Your task to perform on an android device: What's on my calendar tomorrow? Image 0: 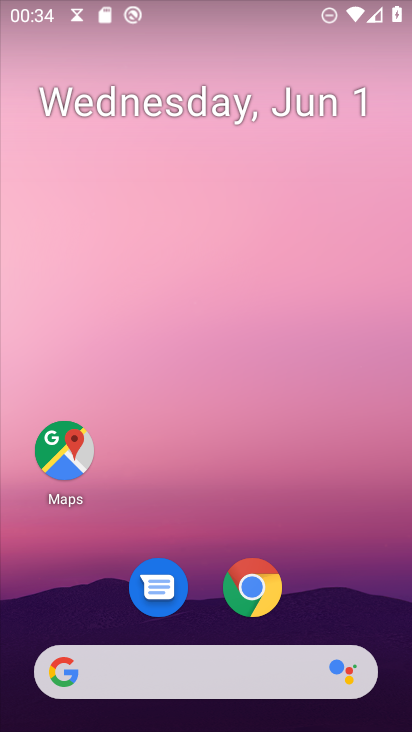
Step 0: drag from (314, 616) to (318, 31)
Your task to perform on an android device: What's on my calendar tomorrow? Image 1: 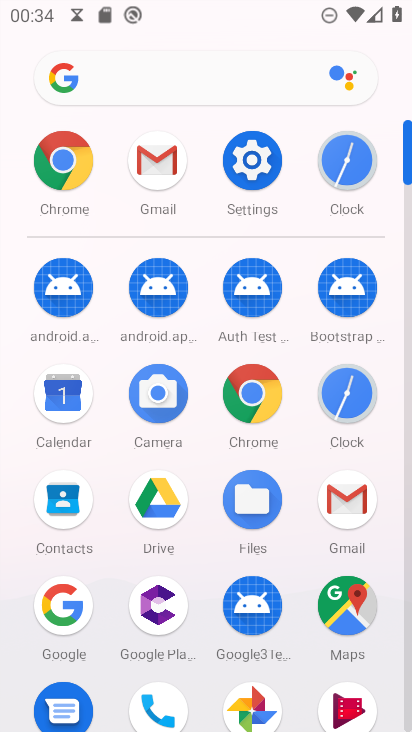
Step 1: click (52, 396)
Your task to perform on an android device: What's on my calendar tomorrow? Image 2: 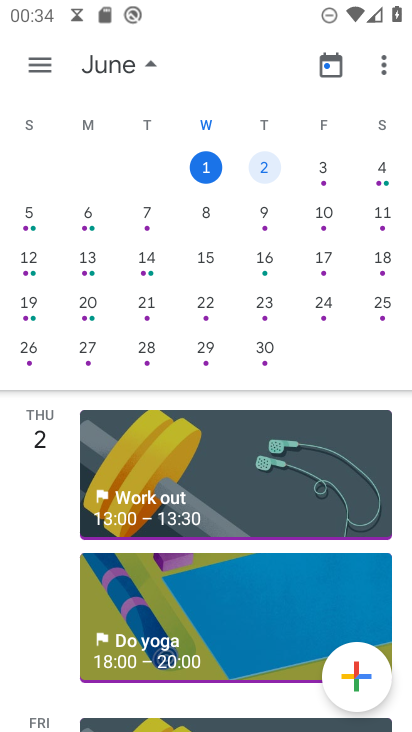
Step 2: click (266, 167)
Your task to perform on an android device: What's on my calendar tomorrow? Image 3: 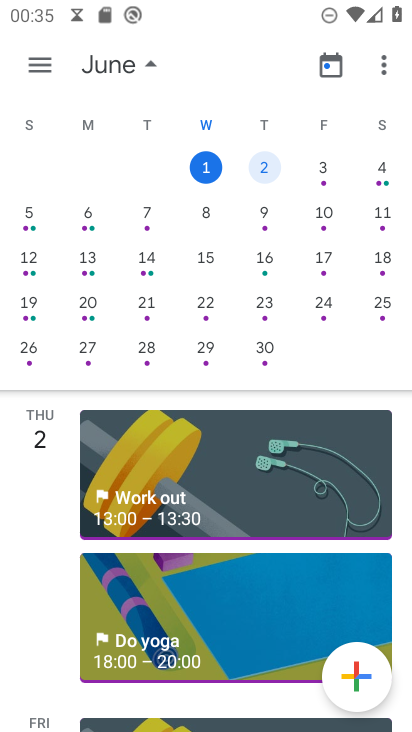
Step 3: task complete